Your task to perform on an android device: check data usage Image 0: 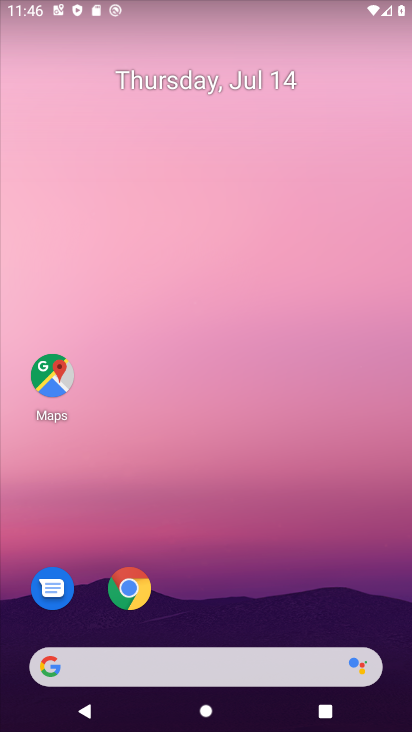
Step 0: drag from (153, 715) to (259, 25)
Your task to perform on an android device: check data usage Image 1: 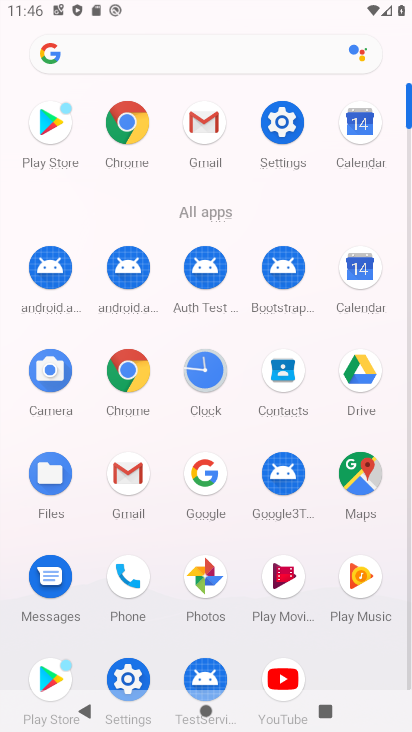
Step 1: click (291, 118)
Your task to perform on an android device: check data usage Image 2: 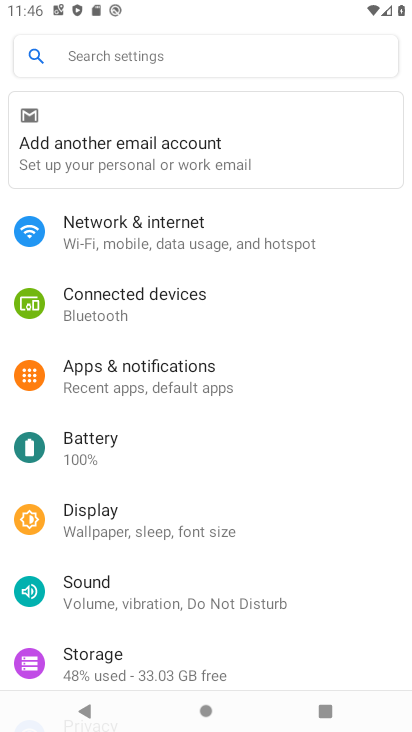
Step 2: click (228, 238)
Your task to perform on an android device: check data usage Image 3: 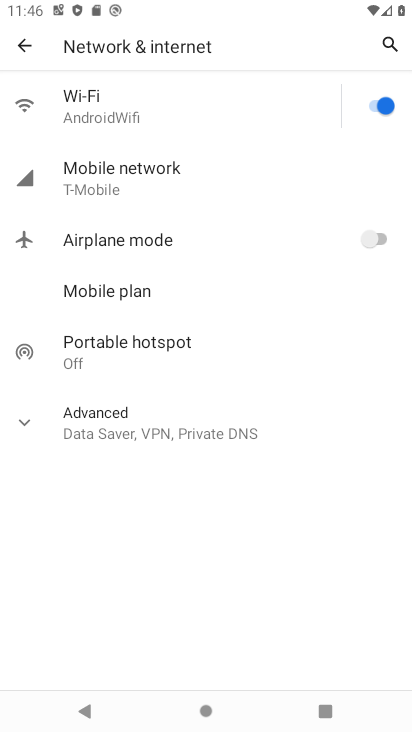
Step 3: click (161, 189)
Your task to perform on an android device: check data usage Image 4: 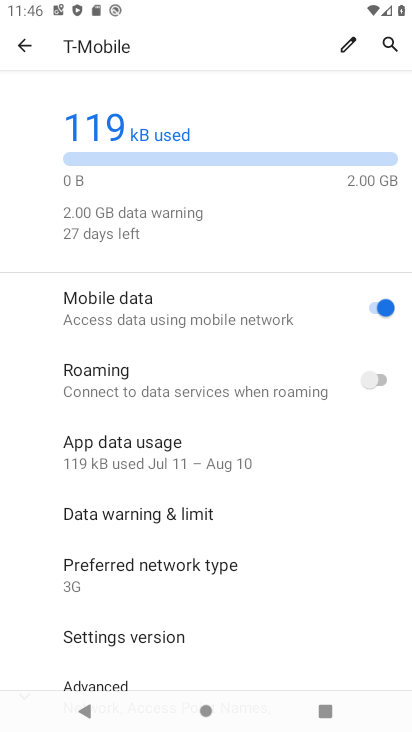
Step 4: task complete